Your task to perform on an android device: manage bookmarks in the chrome app Image 0: 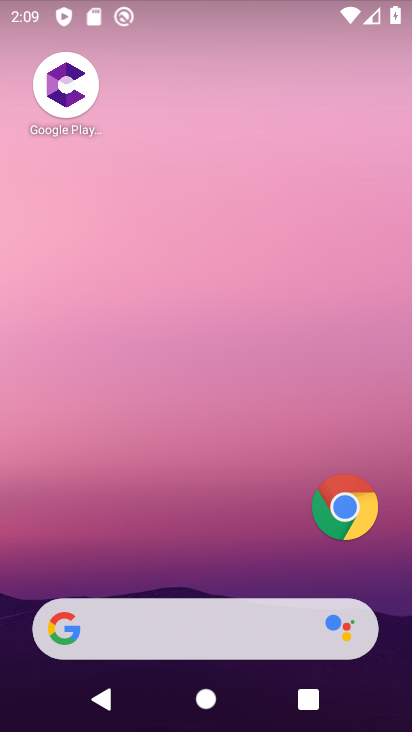
Step 0: drag from (242, 444) to (231, 230)
Your task to perform on an android device: manage bookmarks in the chrome app Image 1: 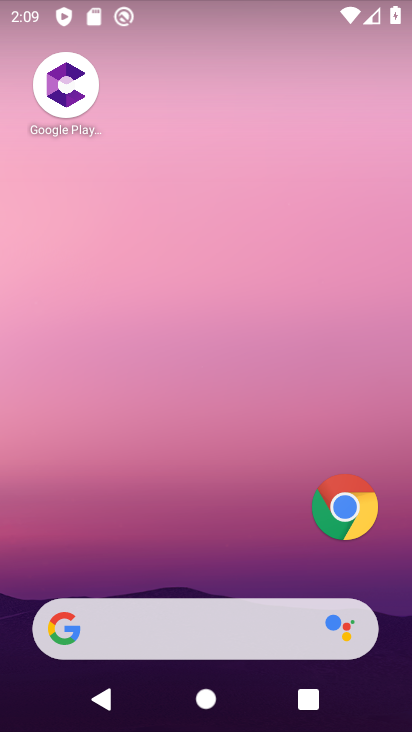
Step 1: drag from (251, 624) to (196, 99)
Your task to perform on an android device: manage bookmarks in the chrome app Image 2: 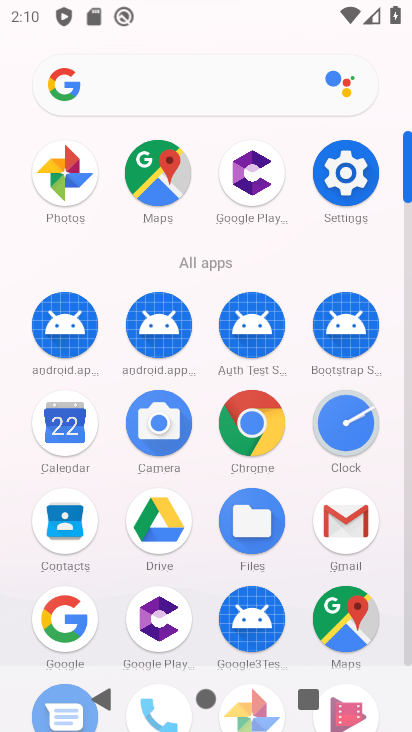
Step 2: click (242, 427)
Your task to perform on an android device: manage bookmarks in the chrome app Image 3: 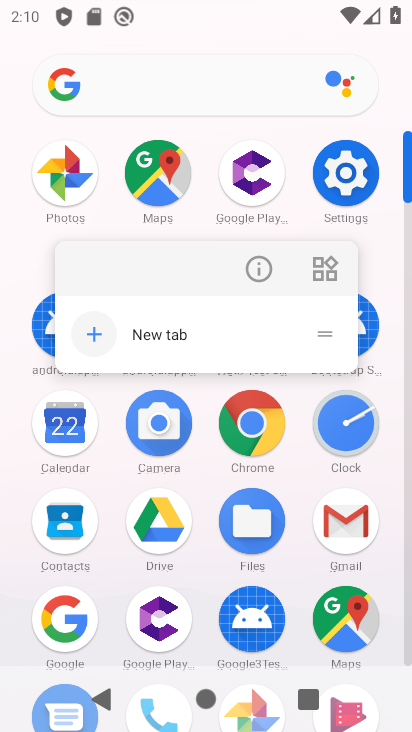
Step 3: click (245, 426)
Your task to perform on an android device: manage bookmarks in the chrome app Image 4: 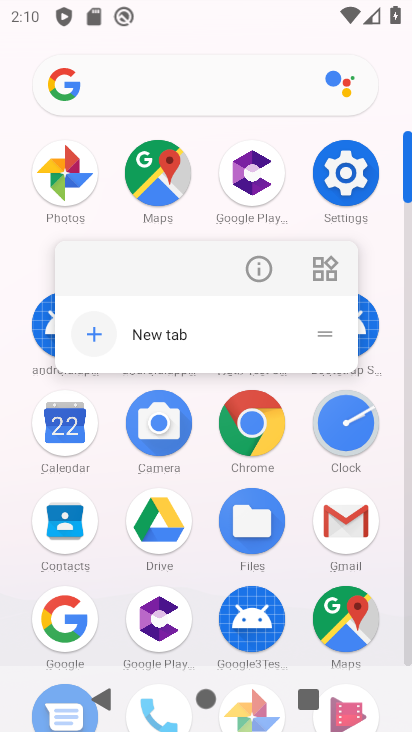
Step 4: click (245, 426)
Your task to perform on an android device: manage bookmarks in the chrome app Image 5: 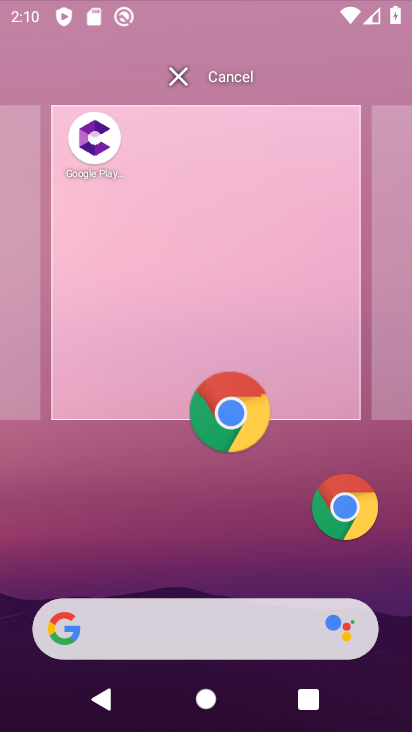
Step 5: click (236, 428)
Your task to perform on an android device: manage bookmarks in the chrome app Image 6: 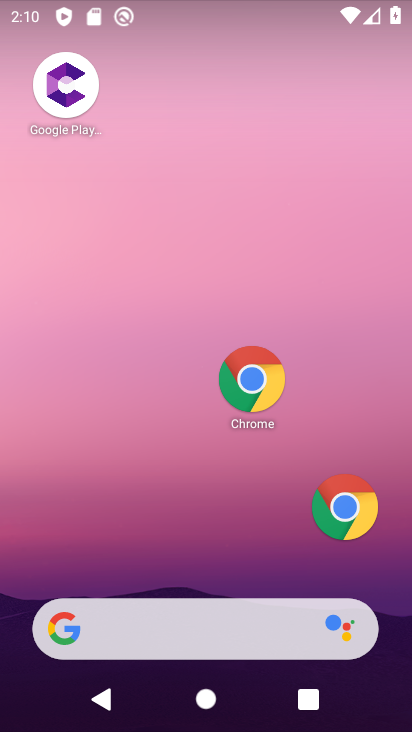
Step 6: drag from (237, 427) to (227, 464)
Your task to perform on an android device: manage bookmarks in the chrome app Image 7: 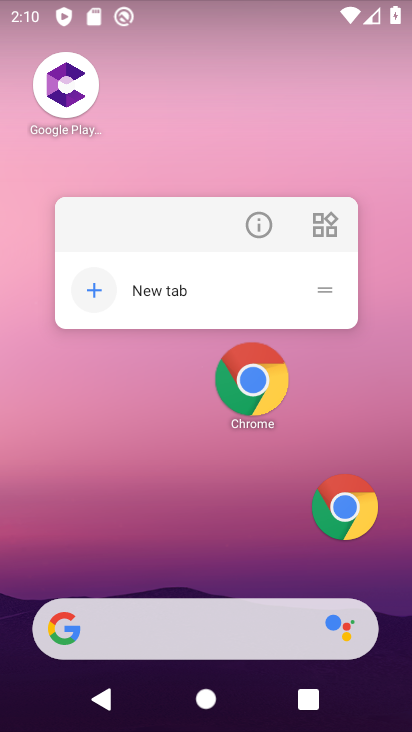
Step 7: drag from (175, 342) to (123, 105)
Your task to perform on an android device: manage bookmarks in the chrome app Image 8: 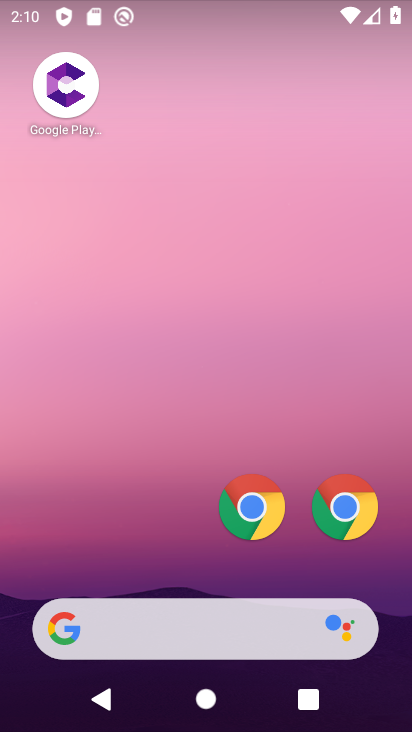
Step 8: drag from (285, 702) to (230, 166)
Your task to perform on an android device: manage bookmarks in the chrome app Image 9: 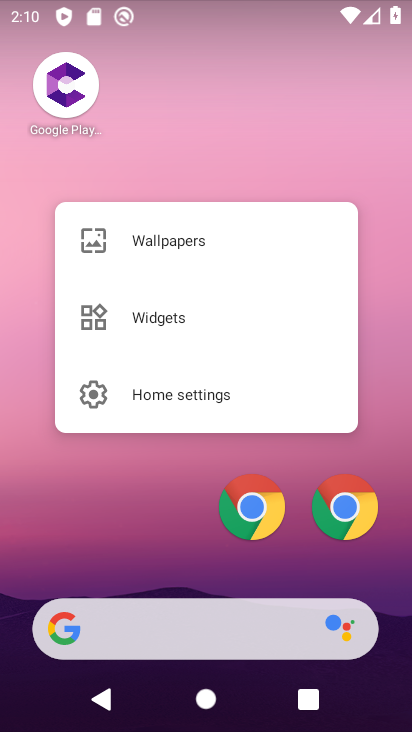
Step 9: drag from (171, 461) to (196, 28)
Your task to perform on an android device: manage bookmarks in the chrome app Image 10: 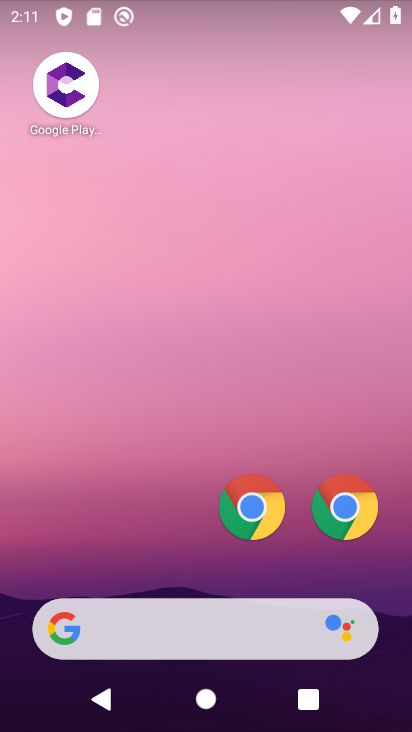
Step 10: drag from (207, 518) to (191, 55)
Your task to perform on an android device: manage bookmarks in the chrome app Image 11: 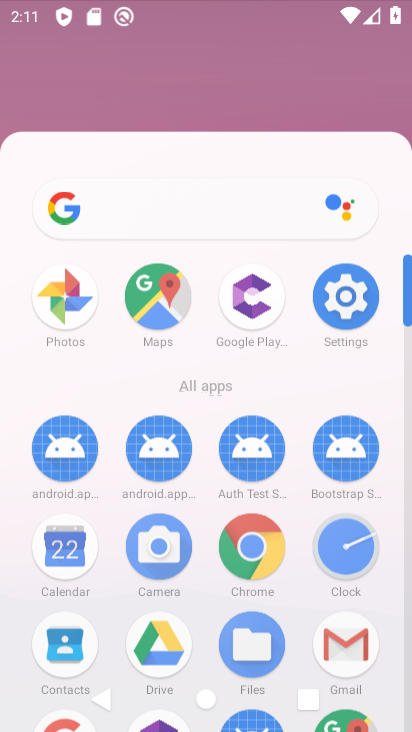
Step 11: drag from (162, 339) to (134, 12)
Your task to perform on an android device: manage bookmarks in the chrome app Image 12: 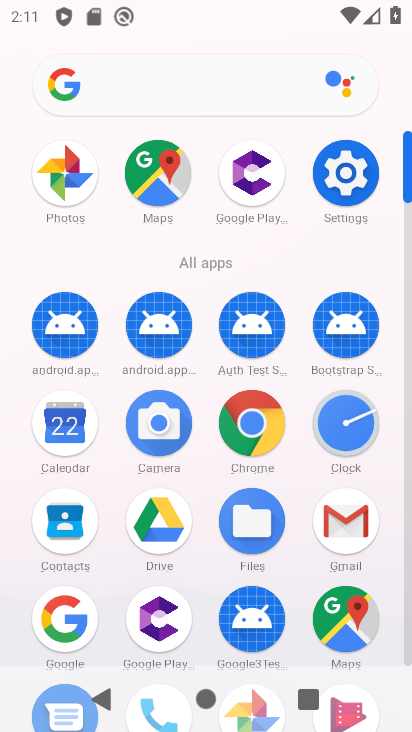
Step 12: click (249, 420)
Your task to perform on an android device: manage bookmarks in the chrome app Image 13: 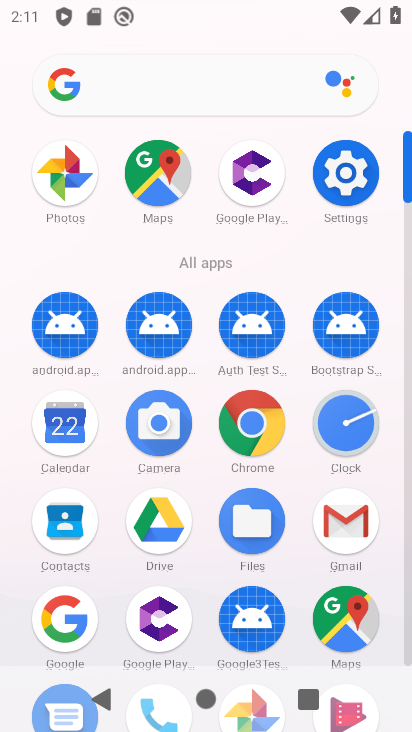
Step 13: click (249, 420)
Your task to perform on an android device: manage bookmarks in the chrome app Image 14: 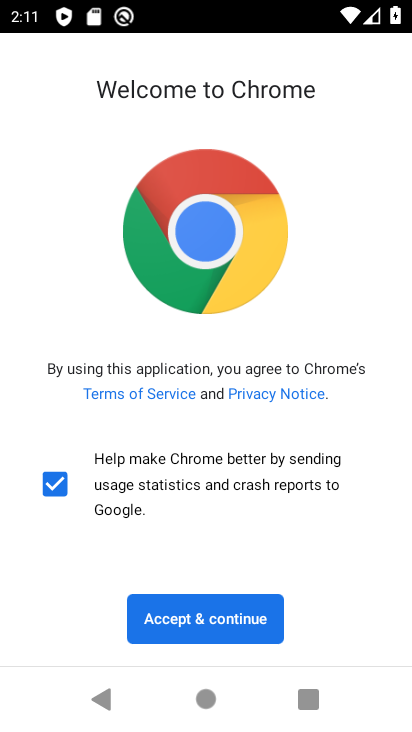
Step 14: click (218, 622)
Your task to perform on an android device: manage bookmarks in the chrome app Image 15: 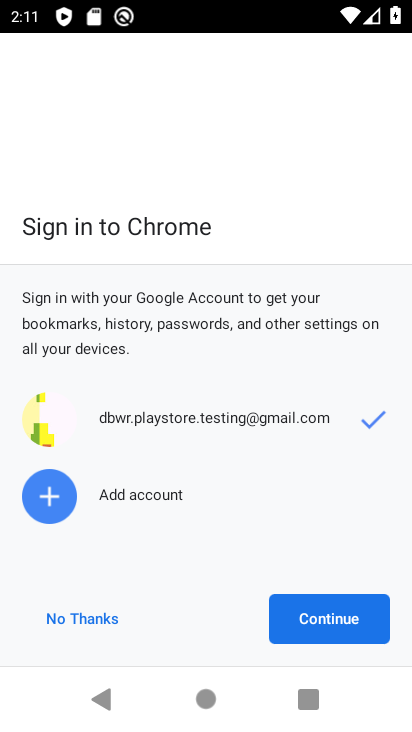
Step 15: click (321, 612)
Your task to perform on an android device: manage bookmarks in the chrome app Image 16: 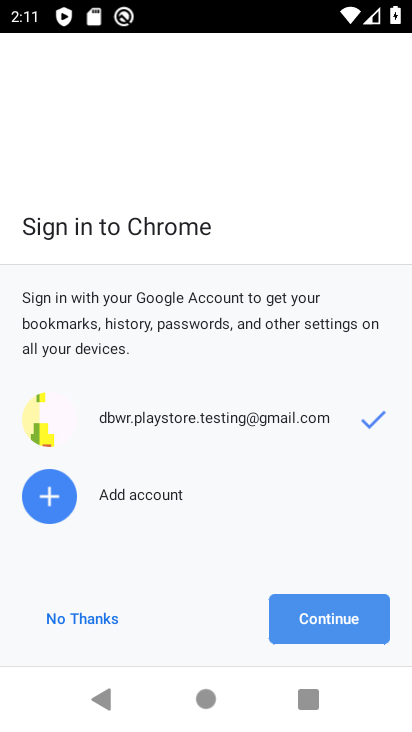
Step 16: click (321, 613)
Your task to perform on an android device: manage bookmarks in the chrome app Image 17: 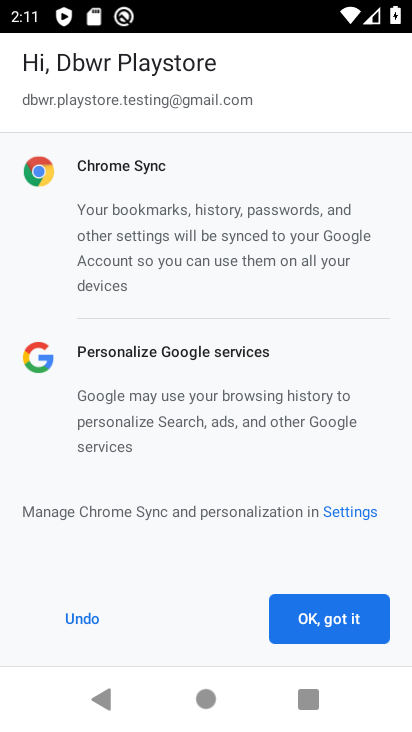
Step 17: click (327, 611)
Your task to perform on an android device: manage bookmarks in the chrome app Image 18: 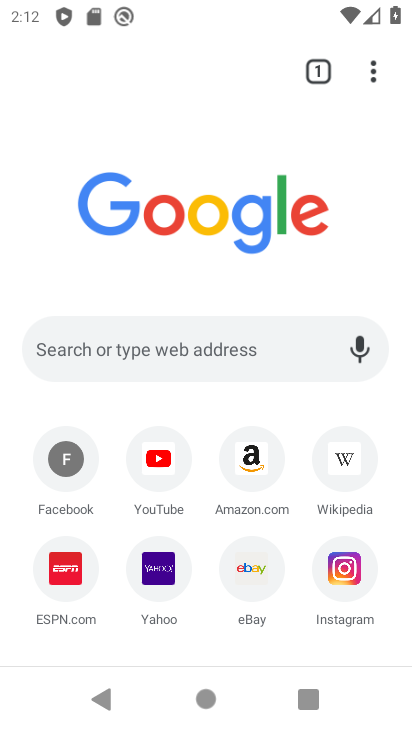
Step 18: drag from (375, 66) to (125, 269)
Your task to perform on an android device: manage bookmarks in the chrome app Image 19: 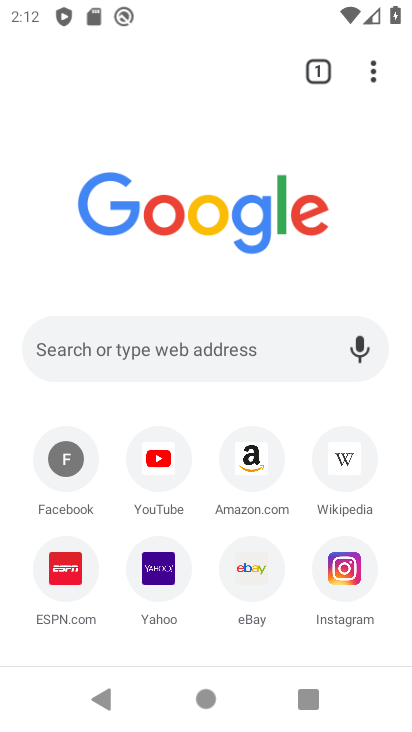
Step 19: click (126, 268)
Your task to perform on an android device: manage bookmarks in the chrome app Image 20: 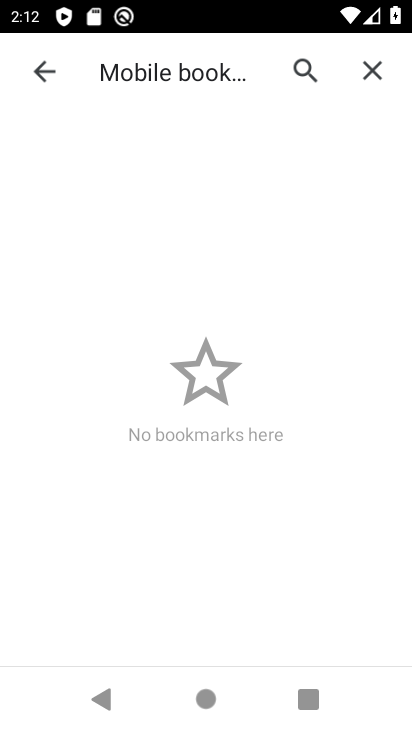
Step 20: task complete